Your task to perform on an android device: change text size in settings app Image 0: 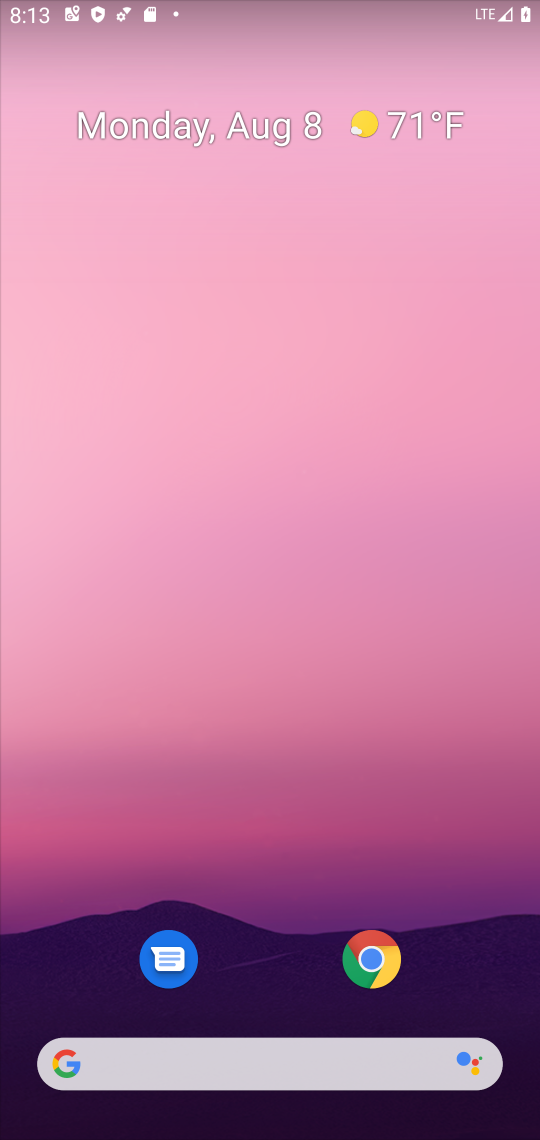
Step 0: drag from (460, 769) to (360, 239)
Your task to perform on an android device: change text size in settings app Image 1: 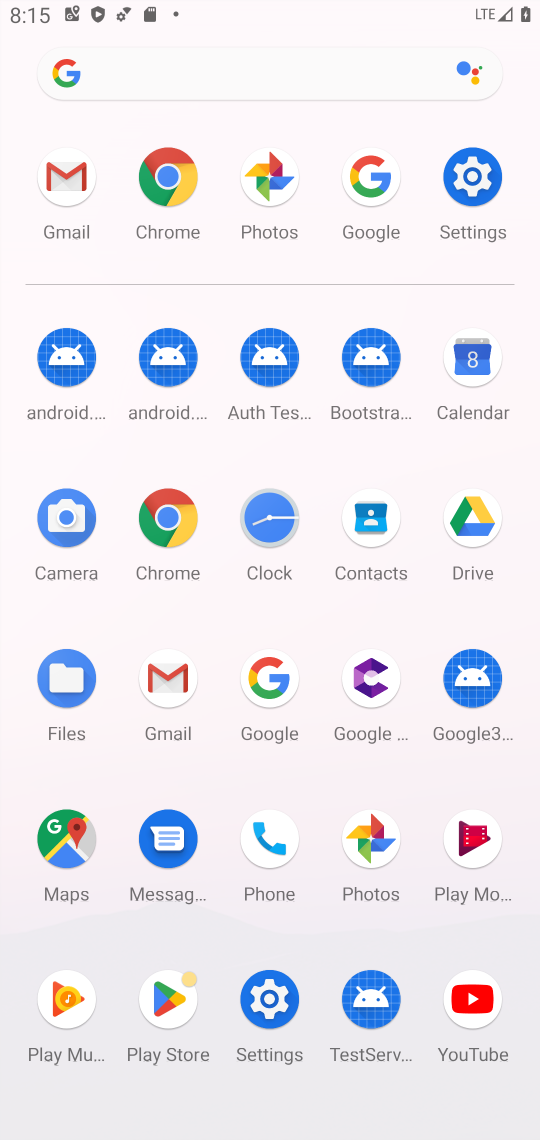
Step 1: click (472, 165)
Your task to perform on an android device: change text size in settings app Image 2: 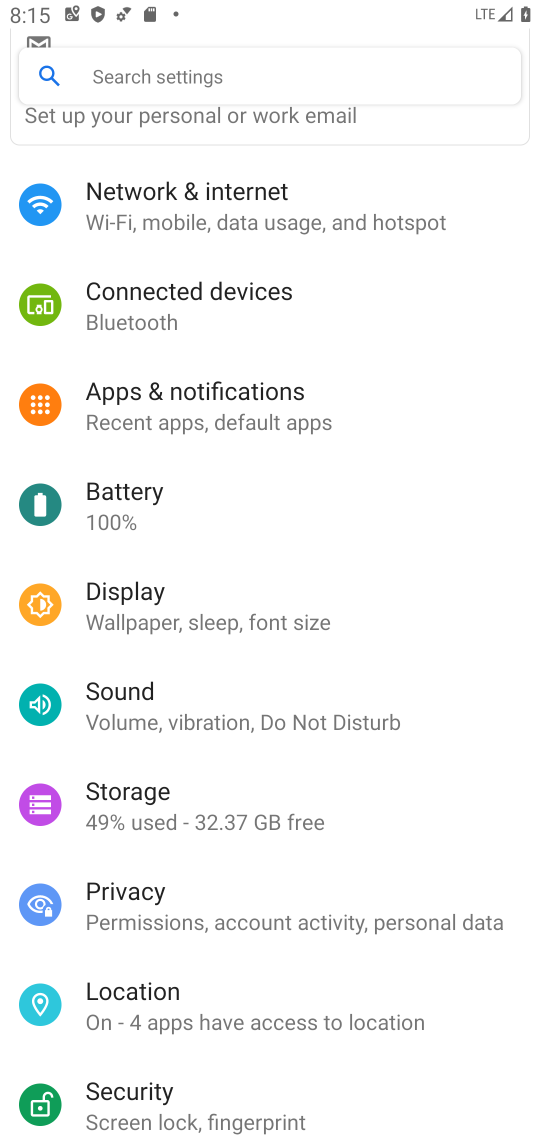
Step 2: click (145, 619)
Your task to perform on an android device: change text size in settings app Image 3: 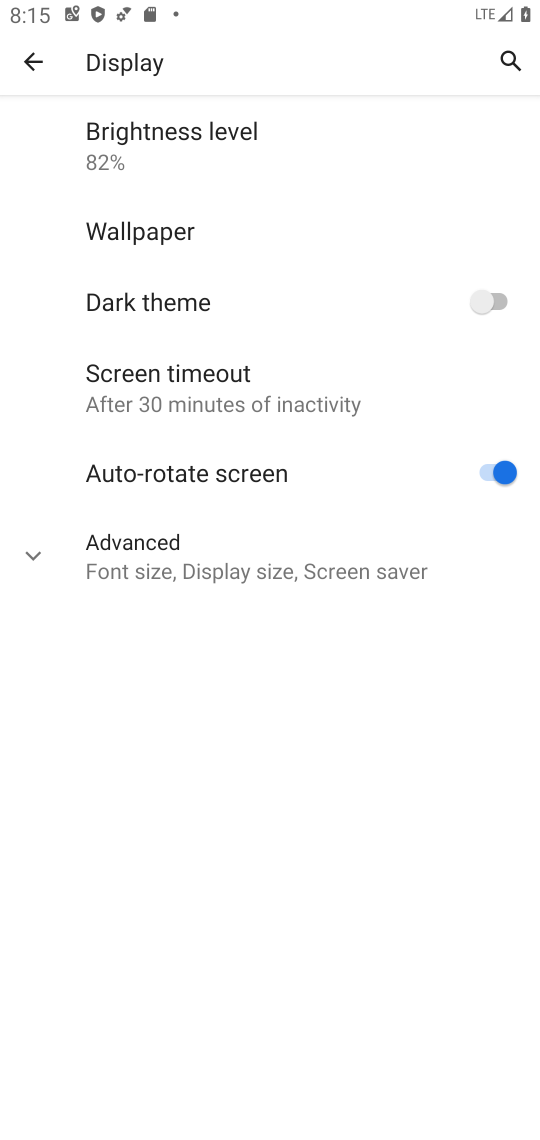
Step 3: click (131, 543)
Your task to perform on an android device: change text size in settings app Image 4: 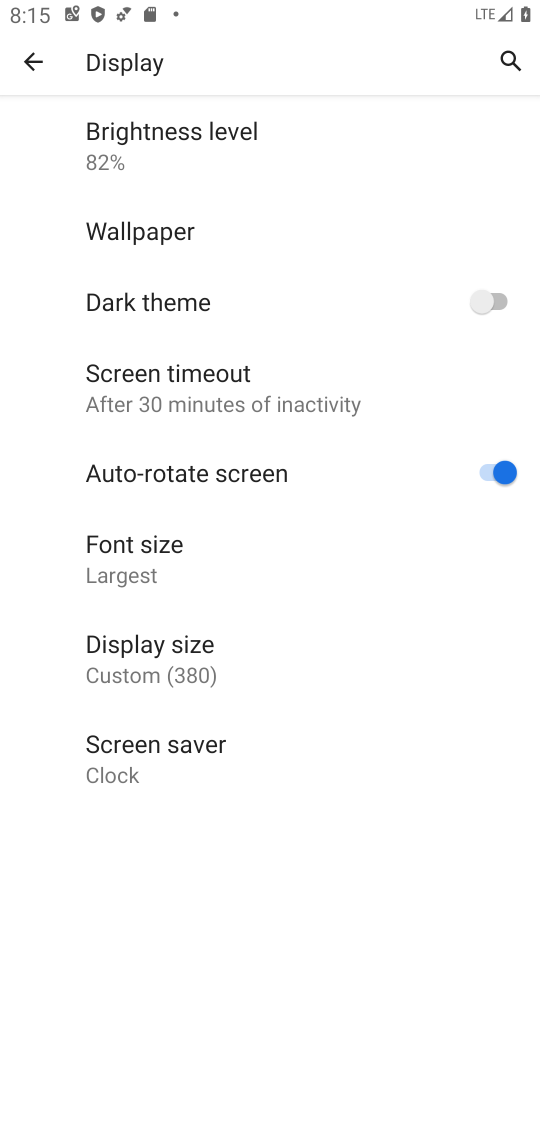
Step 4: click (189, 567)
Your task to perform on an android device: change text size in settings app Image 5: 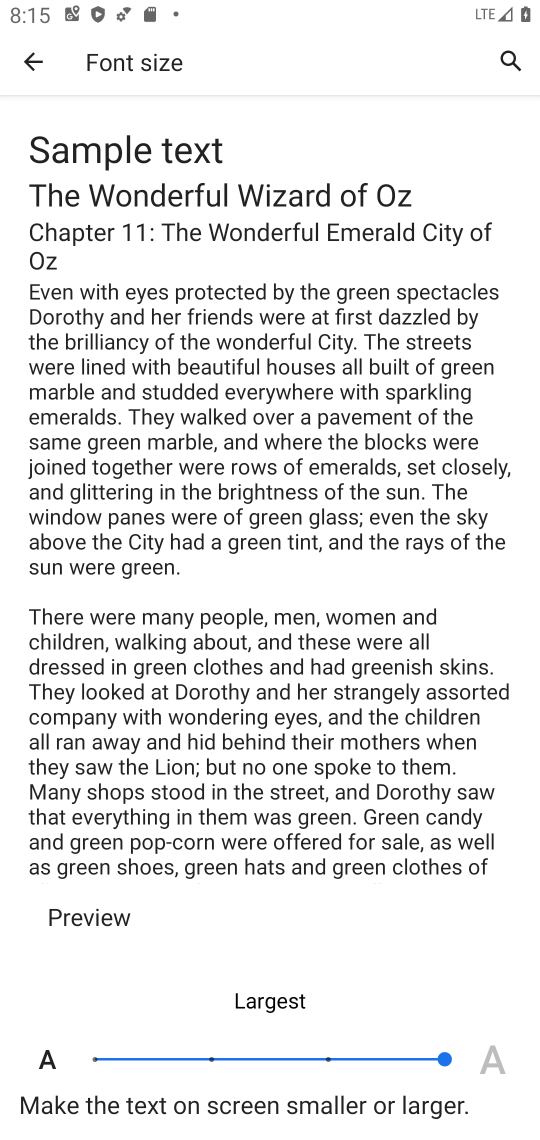
Step 5: task complete